Your task to perform on an android device: Go to notification settings Image 0: 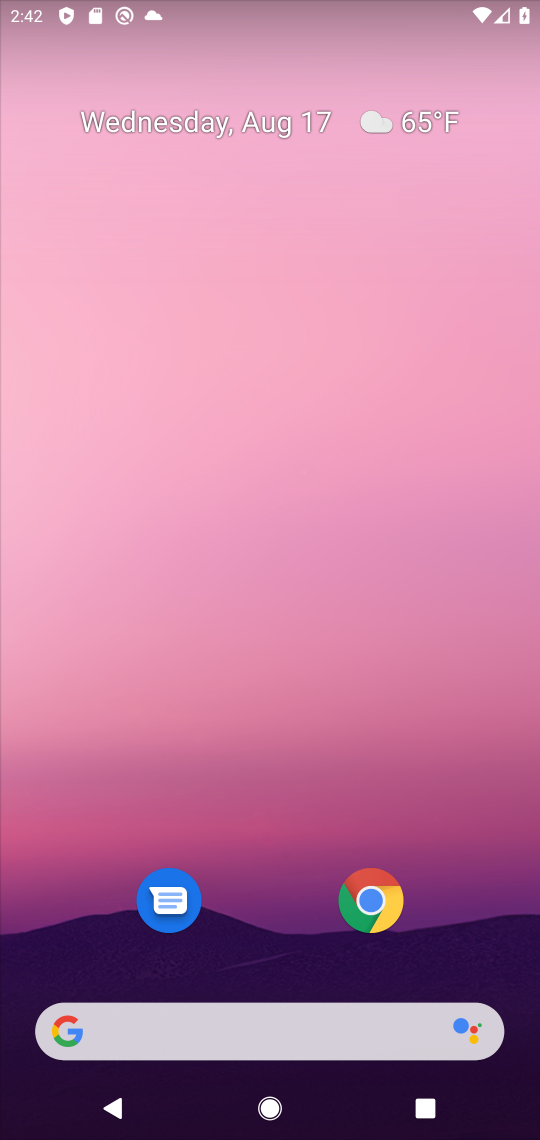
Step 0: drag from (285, 988) to (497, 232)
Your task to perform on an android device: Go to notification settings Image 1: 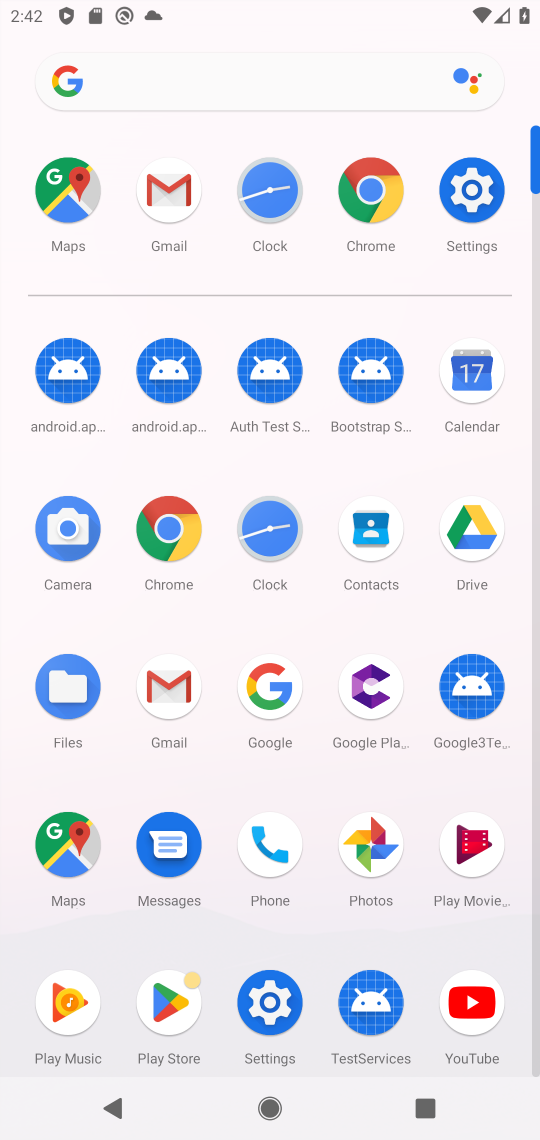
Step 1: click (481, 198)
Your task to perform on an android device: Go to notification settings Image 2: 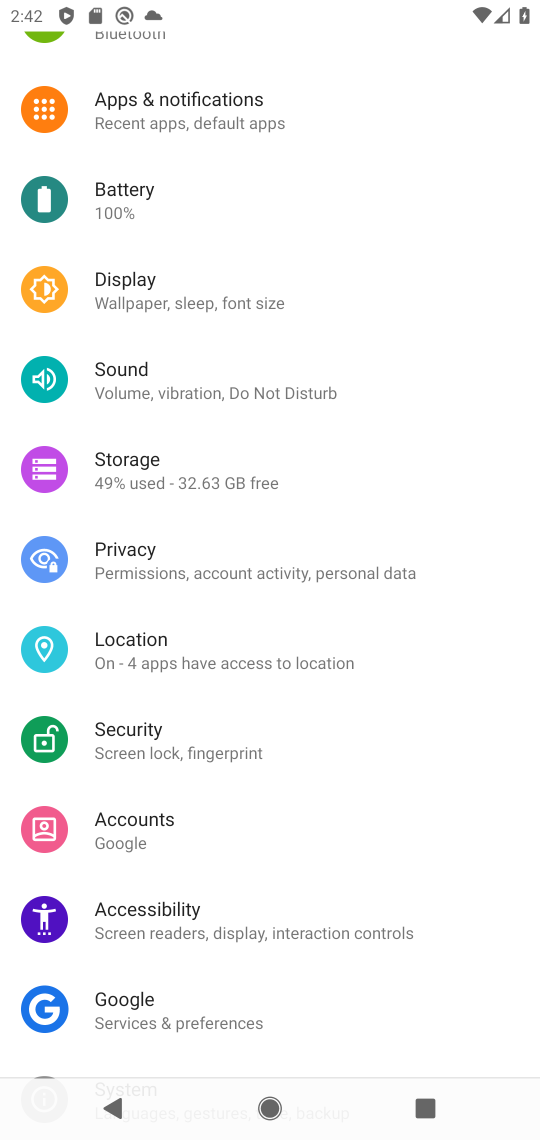
Step 2: click (224, 104)
Your task to perform on an android device: Go to notification settings Image 3: 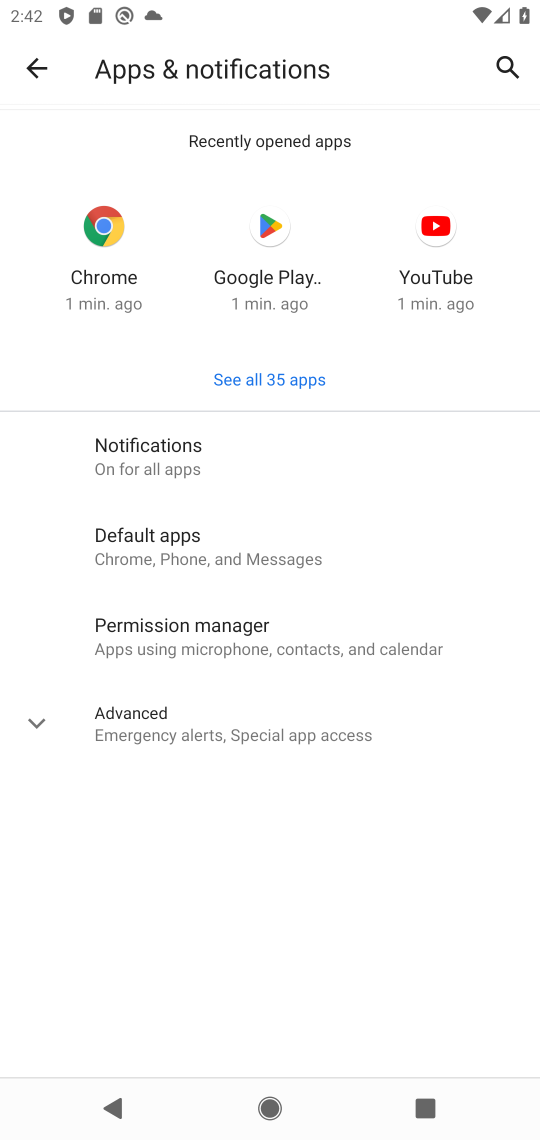
Step 3: task complete